Your task to perform on an android device: Search for Italian restaurants on Maps Image 0: 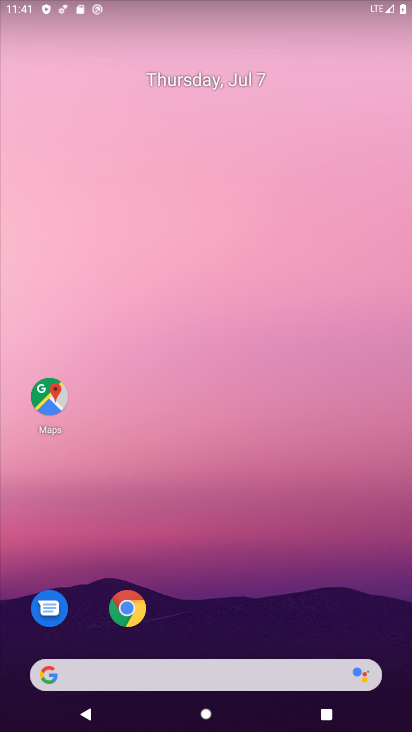
Step 0: drag from (198, 192) to (220, 109)
Your task to perform on an android device: Search for Italian restaurants on Maps Image 1: 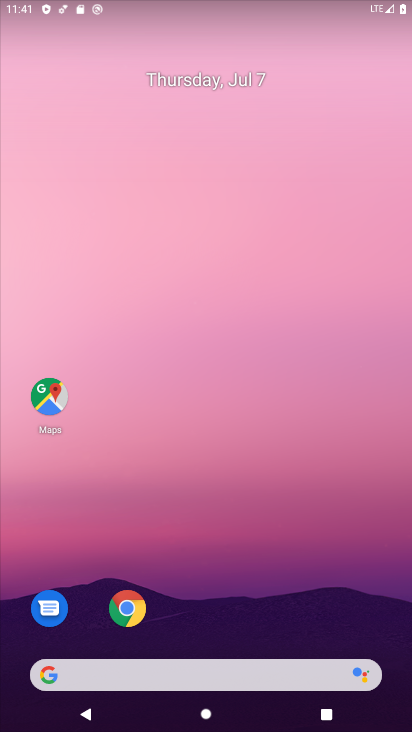
Step 1: drag from (203, 666) to (251, 343)
Your task to perform on an android device: Search for Italian restaurants on Maps Image 2: 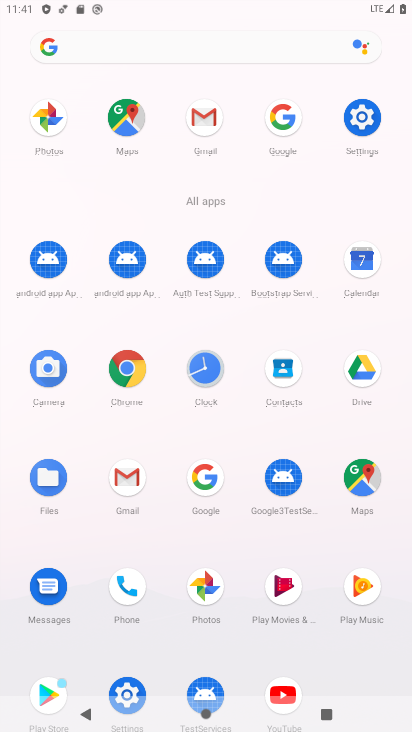
Step 2: click (368, 479)
Your task to perform on an android device: Search for Italian restaurants on Maps Image 3: 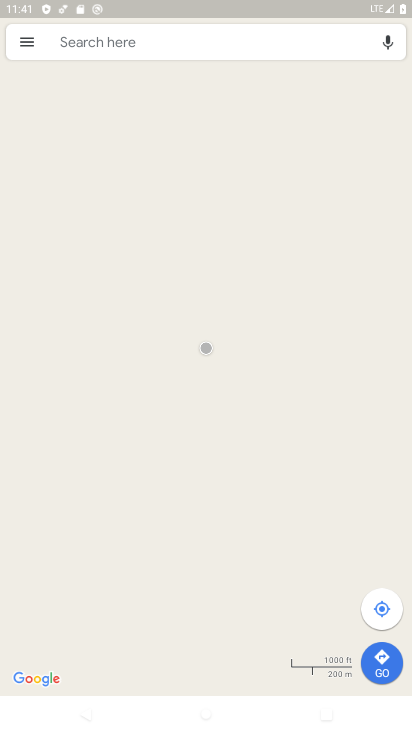
Step 3: click (113, 44)
Your task to perform on an android device: Search for Italian restaurants on Maps Image 4: 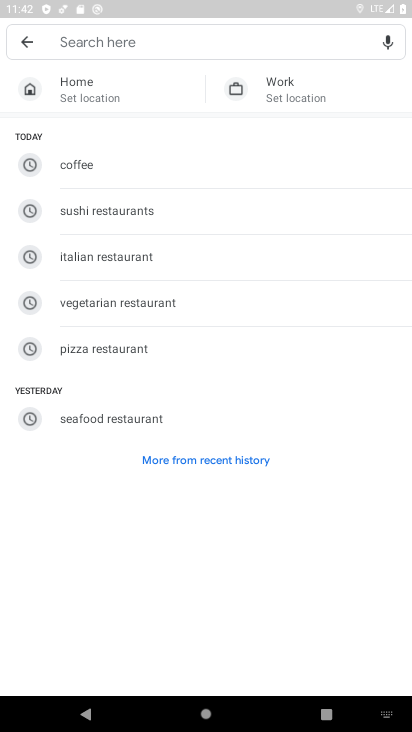
Step 4: type "Italian restaurants"
Your task to perform on an android device: Search for Italian restaurants on Maps Image 5: 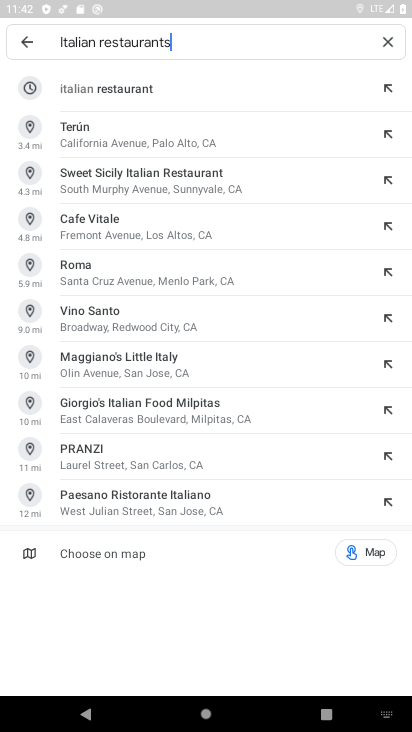
Step 5: click (191, 87)
Your task to perform on an android device: Search for Italian restaurants on Maps Image 6: 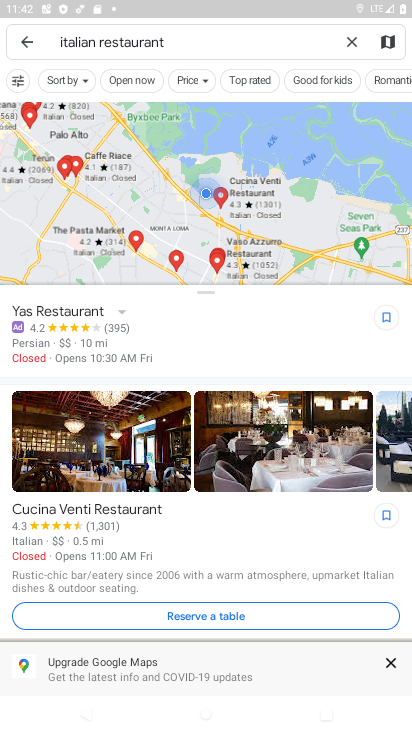
Step 6: click (399, 660)
Your task to perform on an android device: Search for Italian restaurants on Maps Image 7: 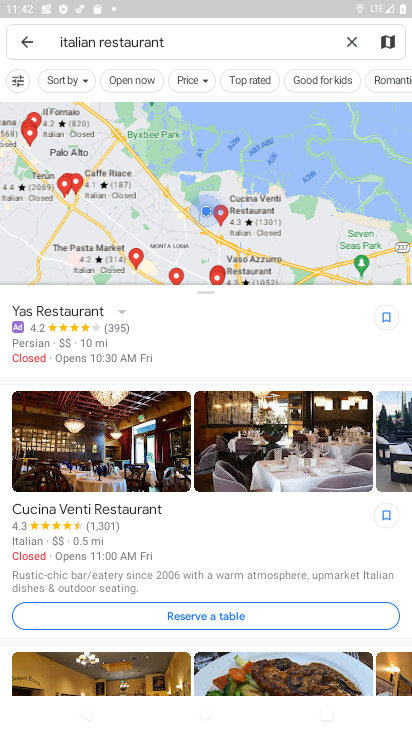
Step 7: task complete